Your task to perform on an android device: search for starred emails in the gmail app Image 0: 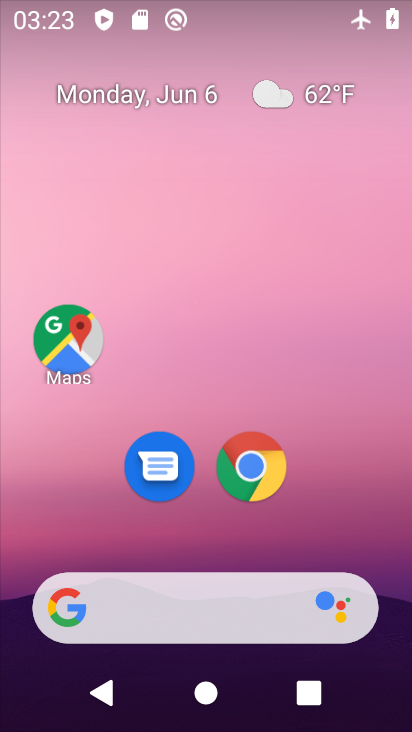
Step 0: drag from (325, 526) to (336, 135)
Your task to perform on an android device: search for starred emails in the gmail app Image 1: 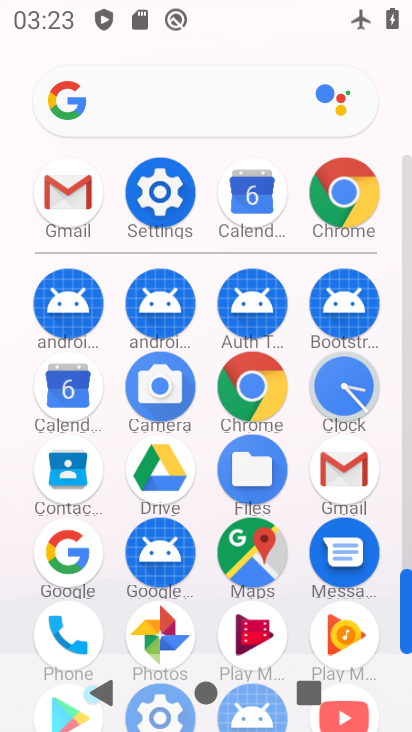
Step 1: click (72, 198)
Your task to perform on an android device: search for starred emails in the gmail app Image 2: 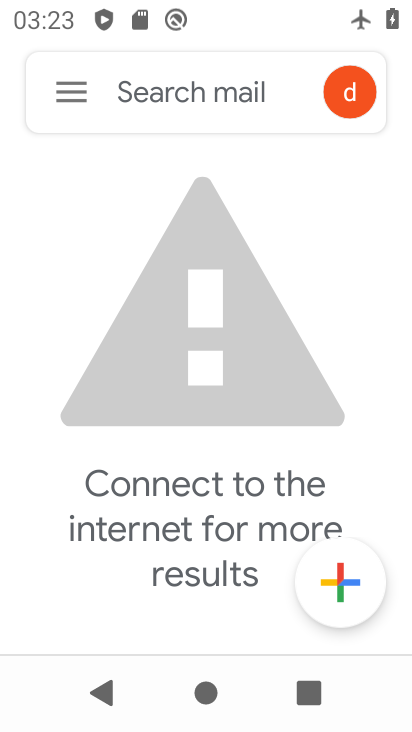
Step 2: click (72, 101)
Your task to perform on an android device: search for starred emails in the gmail app Image 3: 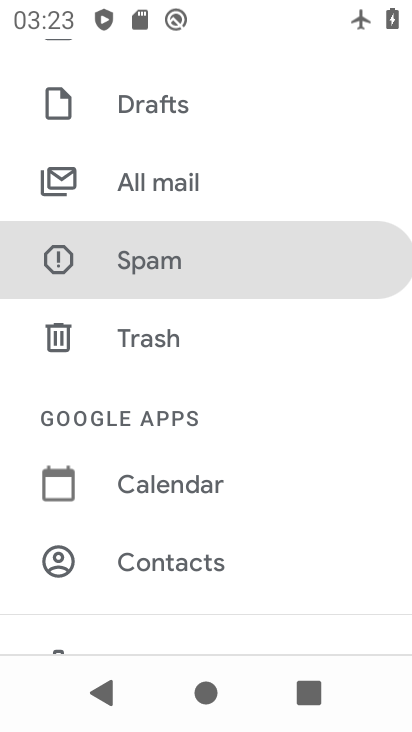
Step 3: drag from (166, 153) to (190, 567)
Your task to perform on an android device: search for starred emails in the gmail app Image 4: 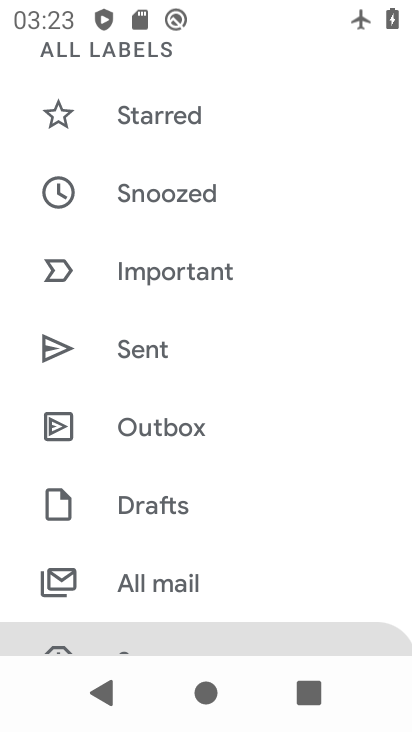
Step 4: drag from (171, 223) to (180, 531)
Your task to perform on an android device: search for starred emails in the gmail app Image 5: 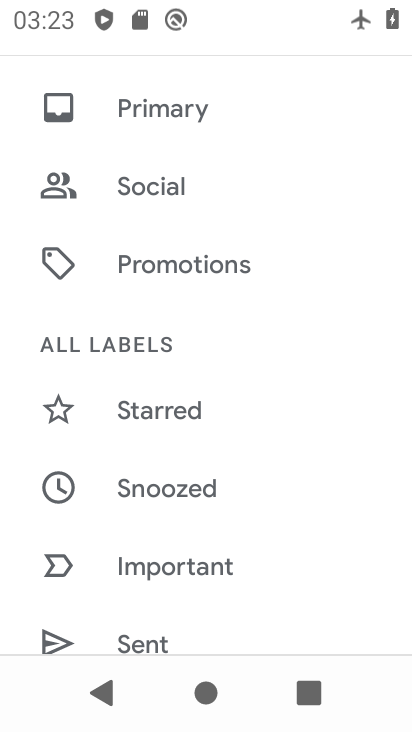
Step 5: click (157, 409)
Your task to perform on an android device: search for starred emails in the gmail app Image 6: 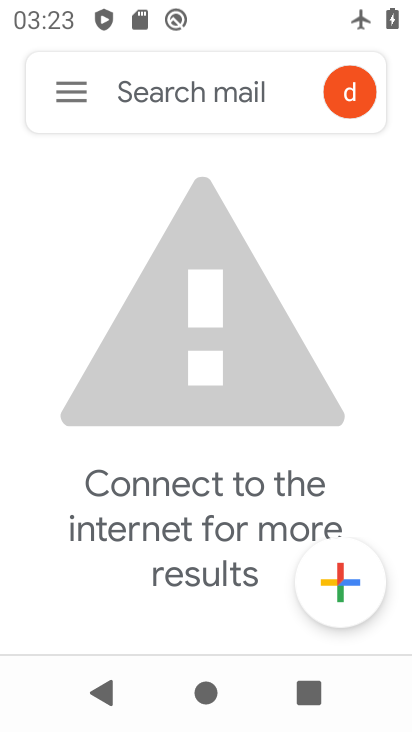
Step 6: task complete